Your task to perform on an android device: turn on sleep mode Image 0: 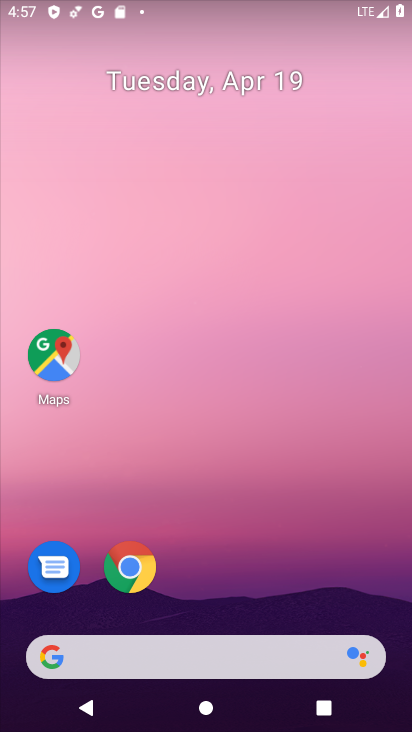
Step 0: drag from (312, 613) to (300, 23)
Your task to perform on an android device: turn on sleep mode Image 1: 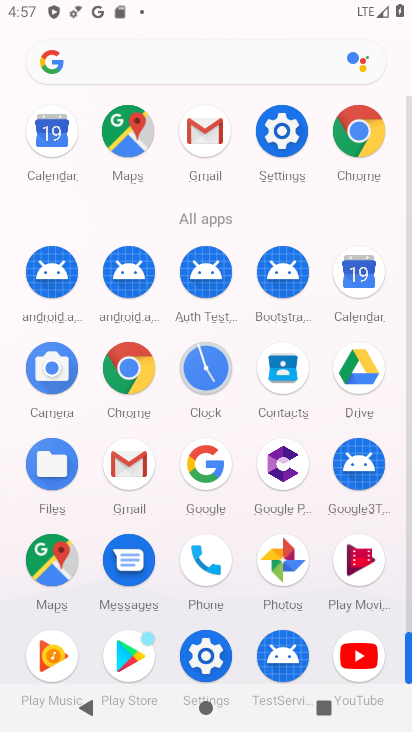
Step 1: click (205, 648)
Your task to perform on an android device: turn on sleep mode Image 2: 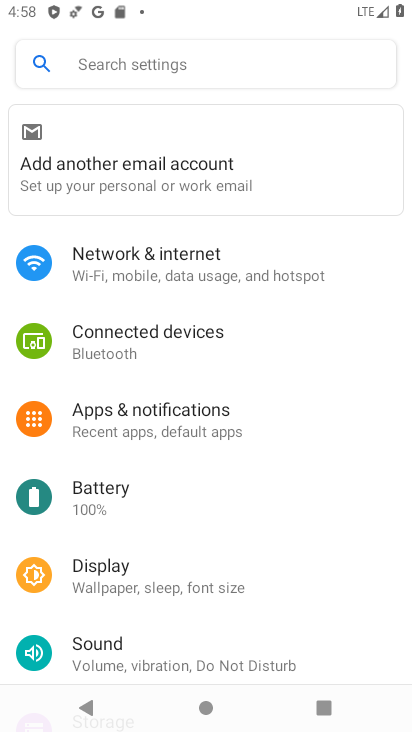
Step 2: task complete